Your task to perform on an android device: What is the recent news? Image 0: 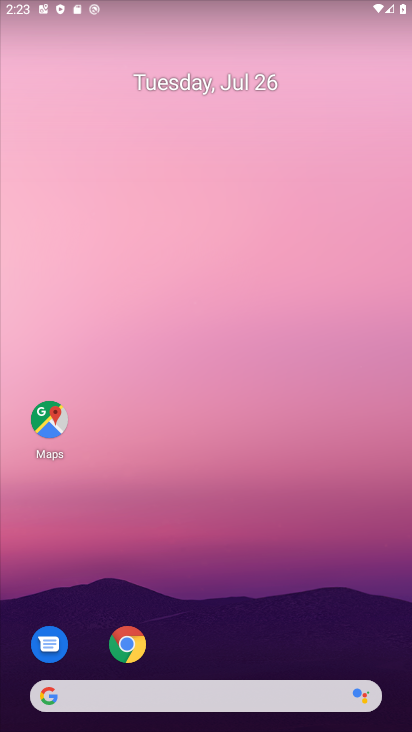
Step 0: click (49, 689)
Your task to perform on an android device: What is the recent news? Image 1: 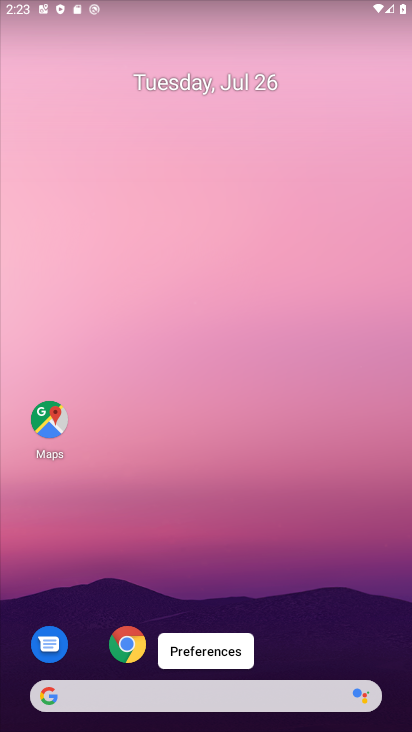
Step 1: click (46, 703)
Your task to perform on an android device: What is the recent news? Image 2: 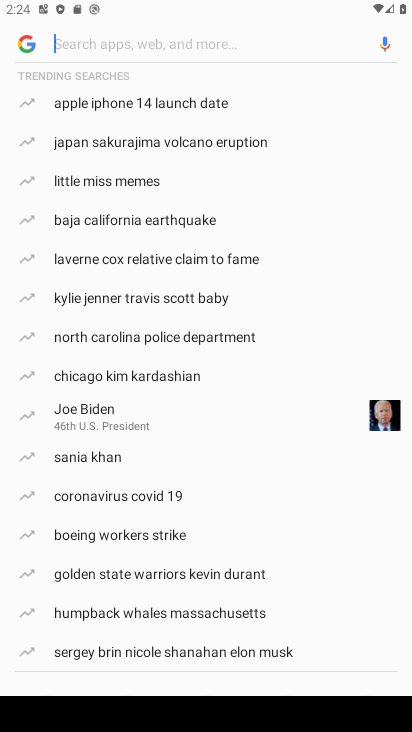
Step 2: type "What is the recent news?"
Your task to perform on an android device: What is the recent news? Image 3: 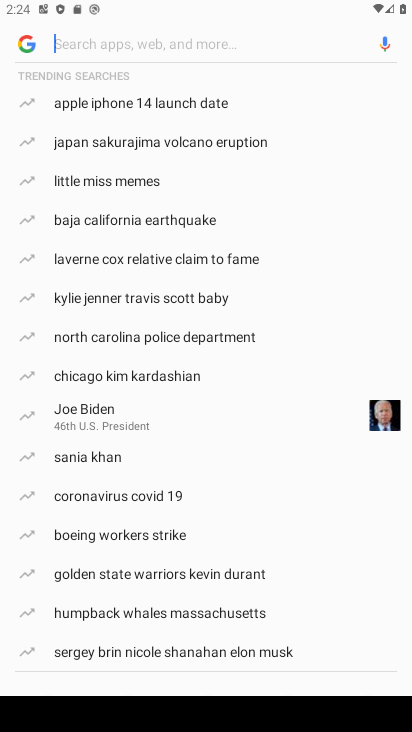
Step 3: click (80, 45)
Your task to perform on an android device: What is the recent news? Image 4: 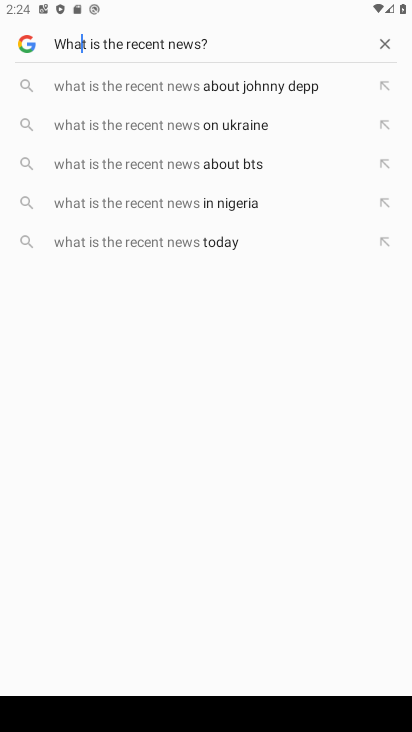
Step 4: click (153, 43)
Your task to perform on an android device: What is the recent news? Image 5: 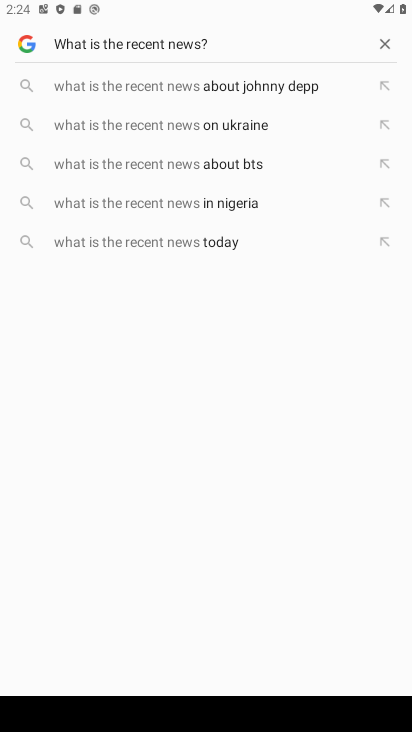
Step 5: press enter
Your task to perform on an android device: What is the recent news? Image 6: 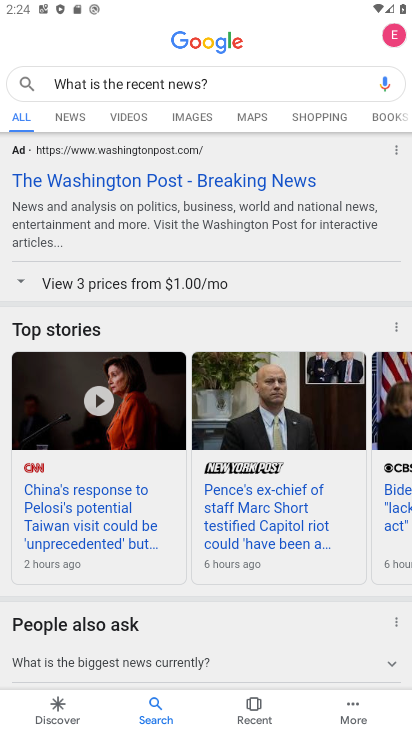
Step 6: task complete